Your task to perform on an android device: Open internet settings Image 0: 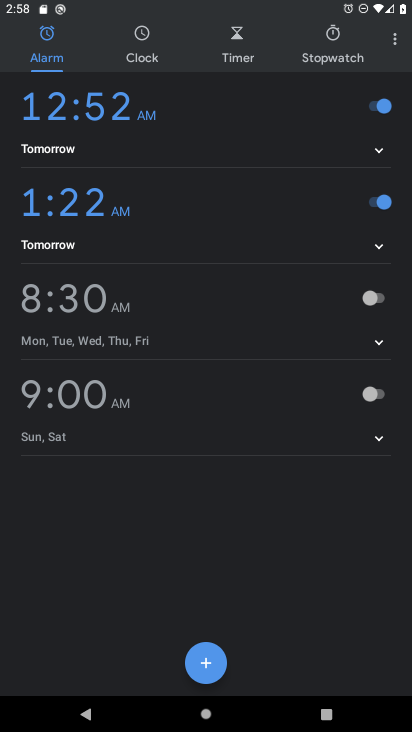
Step 0: press home button
Your task to perform on an android device: Open internet settings Image 1: 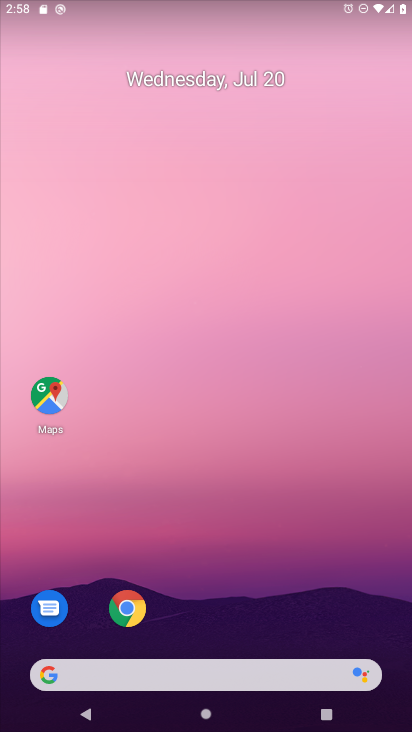
Step 1: drag from (151, 421) to (335, 15)
Your task to perform on an android device: Open internet settings Image 2: 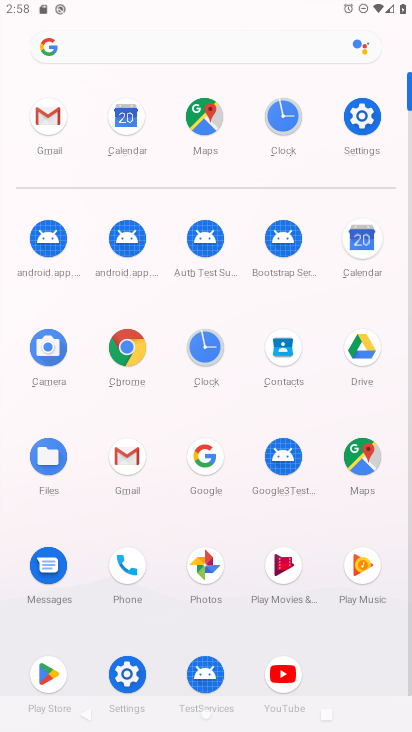
Step 2: click (351, 114)
Your task to perform on an android device: Open internet settings Image 3: 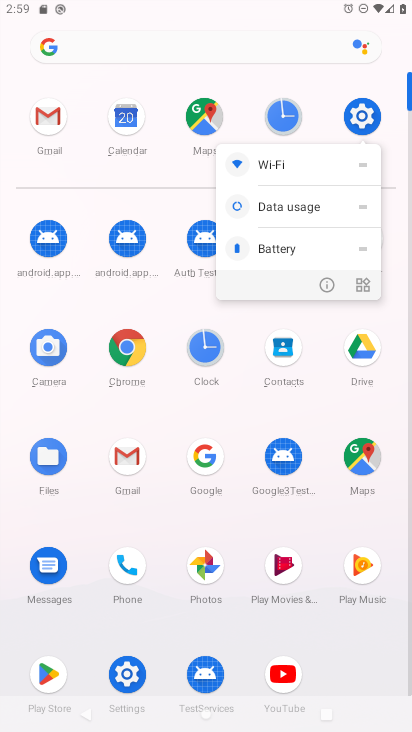
Step 3: click (351, 112)
Your task to perform on an android device: Open internet settings Image 4: 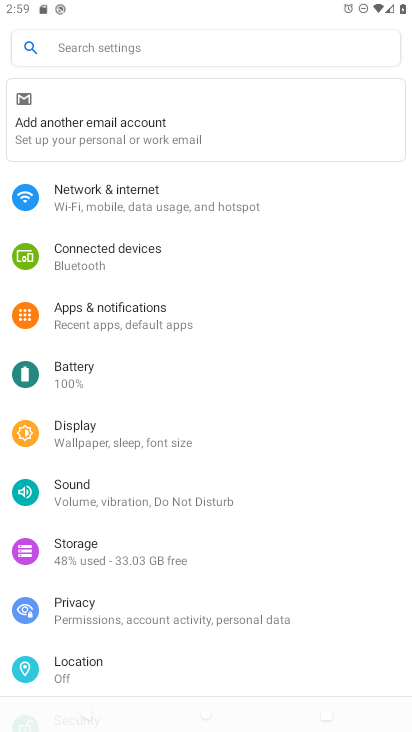
Step 4: click (279, 184)
Your task to perform on an android device: Open internet settings Image 5: 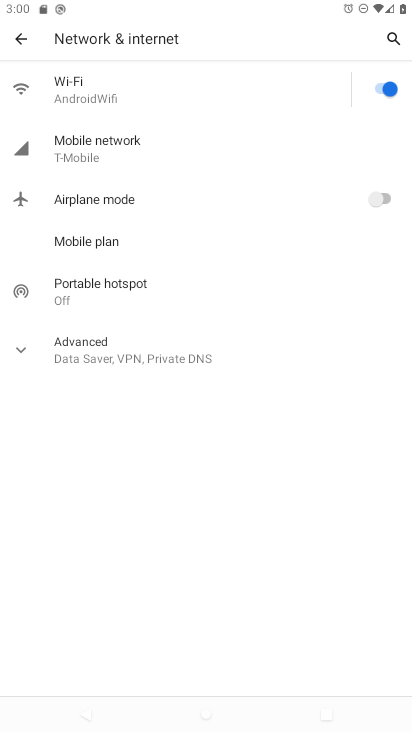
Step 5: task complete